Your task to perform on an android device: add a label to a message in the gmail app Image 0: 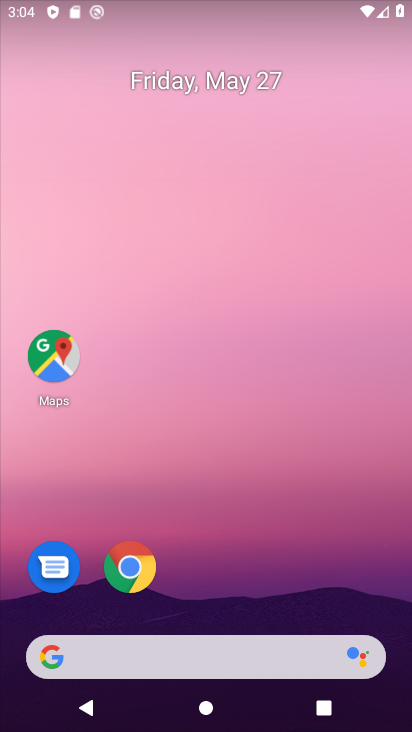
Step 0: drag from (358, 597) to (257, 56)
Your task to perform on an android device: add a label to a message in the gmail app Image 1: 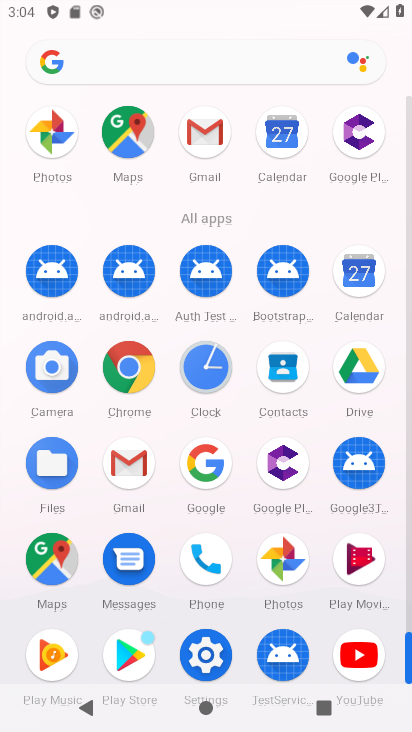
Step 1: click (125, 469)
Your task to perform on an android device: add a label to a message in the gmail app Image 2: 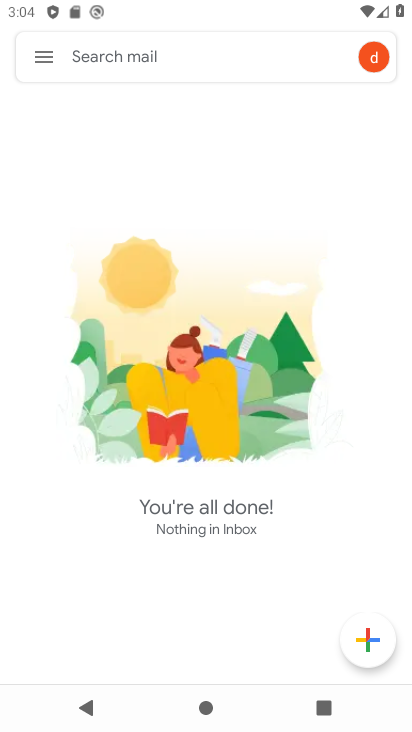
Step 2: click (41, 52)
Your task to perform on an android device: add a label to a message in the gmail app Image 3: 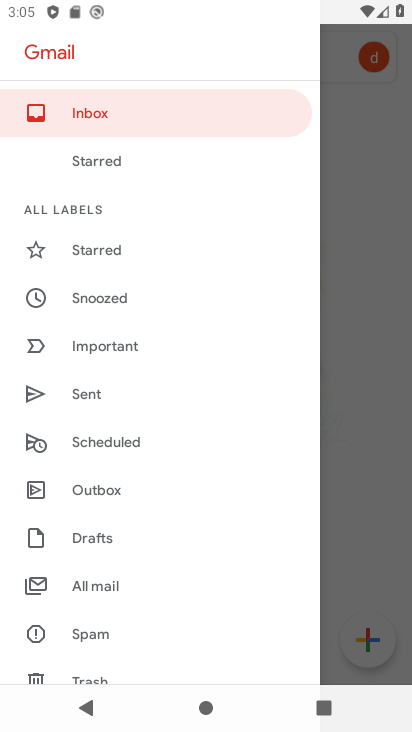
Step 3: click (114, 584)
Your task to perform on an android device: add a label to a message in the gmail app Image 4: 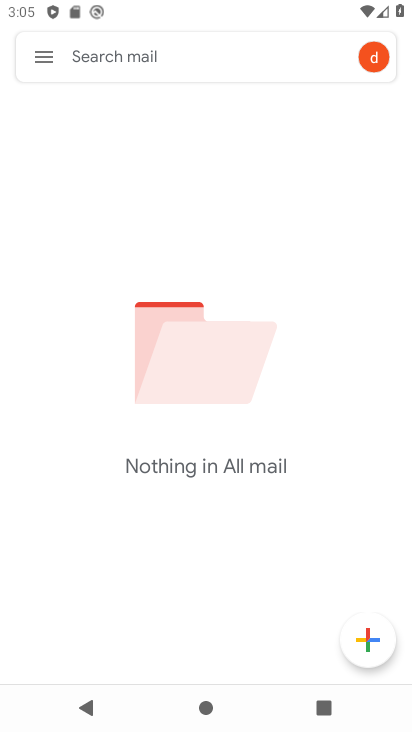
Step 4: task complete